Your task to perform on an android device: open a bookmark in the chrome app Image 0: 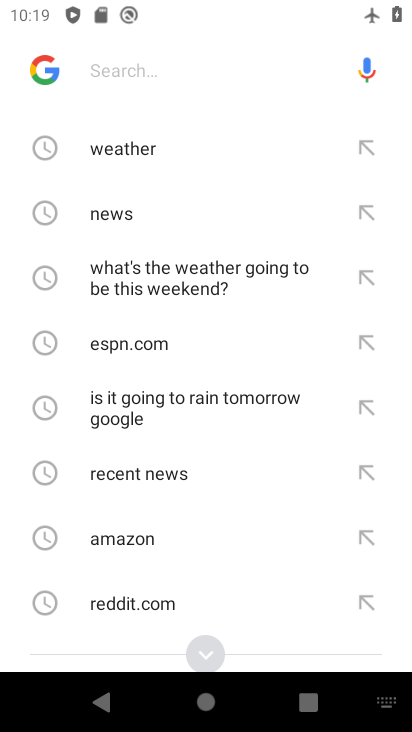
Step 0: press back button
Your task to perform on an android device: open a bookmark in the chrome app Image 1: 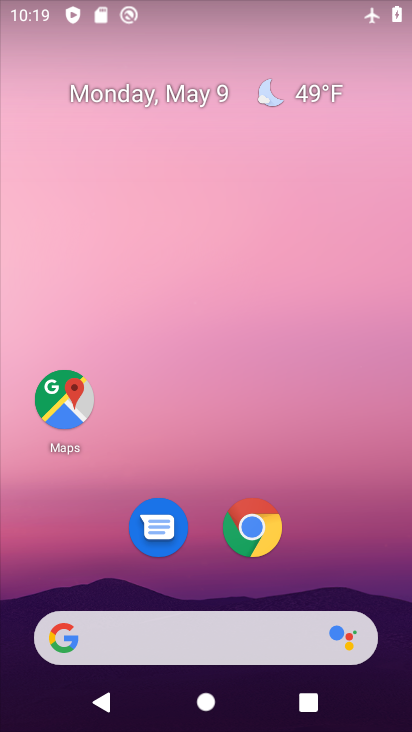
Step 1: click (252, 528)
Your task to perform on an android device: open a bookmark in the chrome app Image 2: 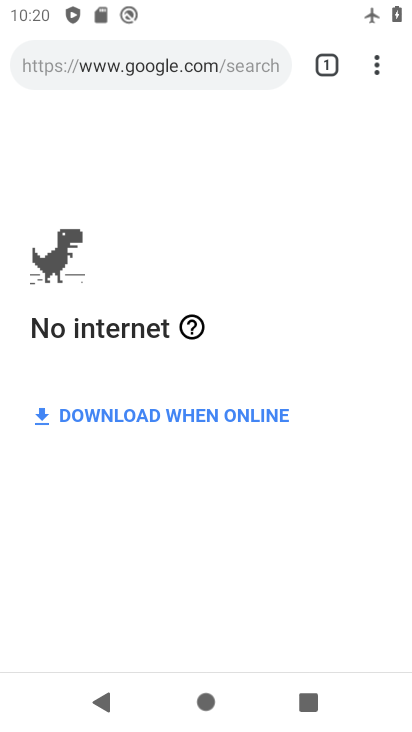
Step 2: click (377, 65)
Your task to perform on an android device: open a bookmark in the chrome app Image 3: 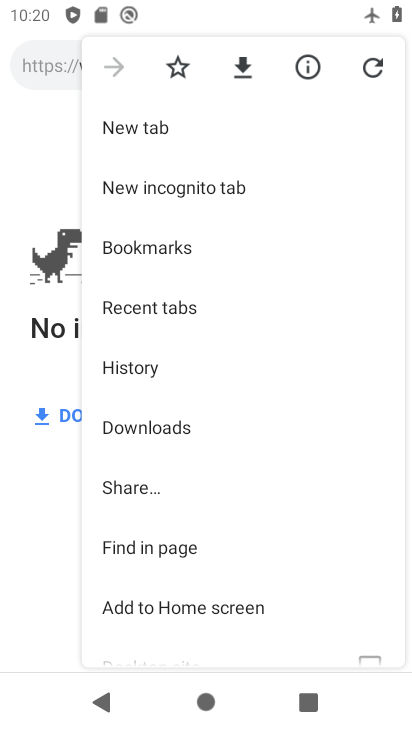
Step 3: click (171, 249)
Your task to perform on an android device: open a bookmark in the chrome app Image 4: 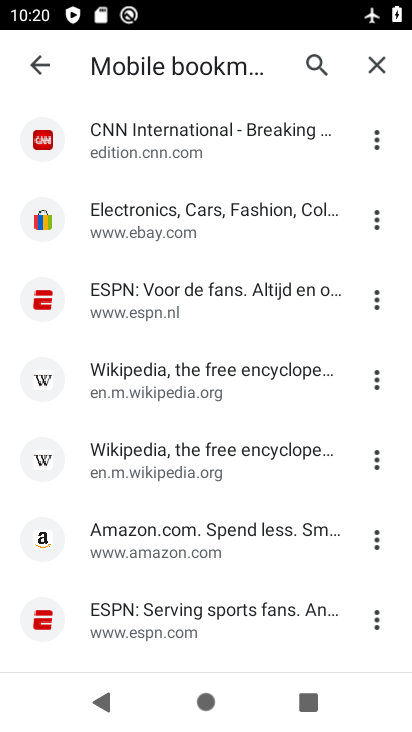
Step 4: task complete